Your task to perform on an android device: open app "Walmart Shopping & Grocery" (install if not already installed) Image 0: 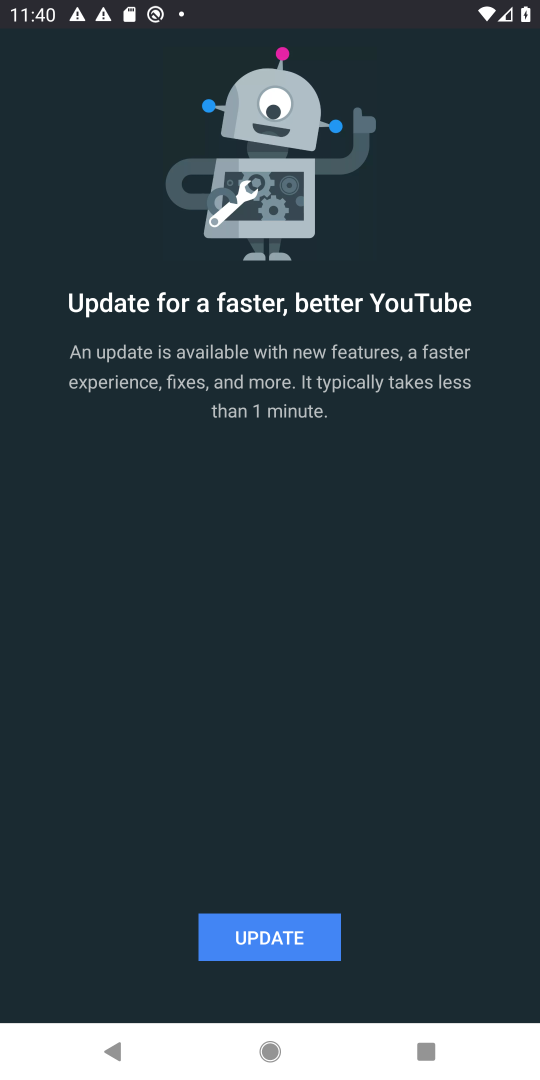
Step 0: press home button
Your task to perform on an android device: open app "Walmart Shopping & Grocery" (install if not already installed) Image 1: 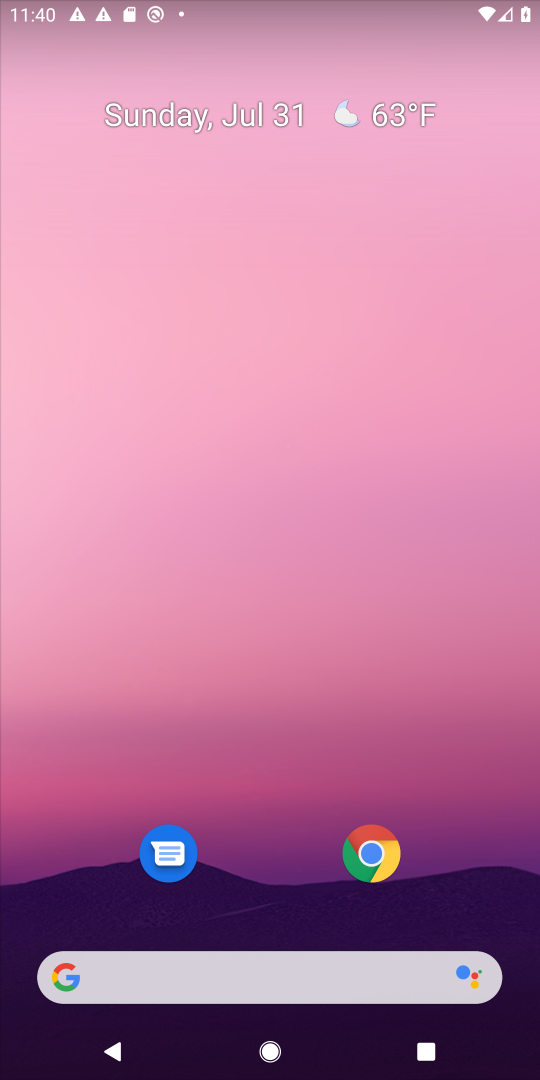
Step 1: drag from (323, 979) to (329, 16)
Your task to perform on an android device: open app "Walmart Shopping & Grocery" (install if not already installed) Image 2: 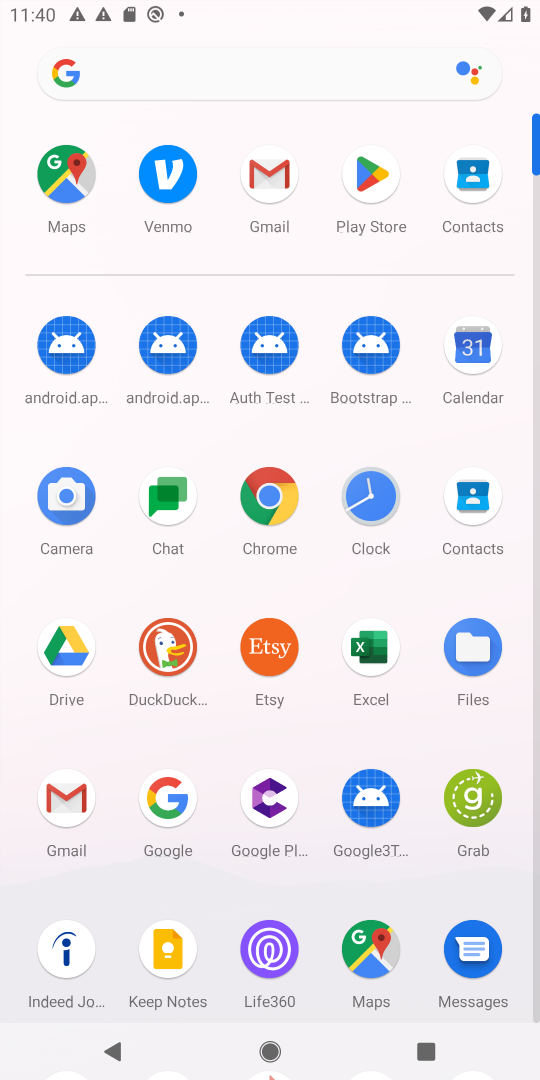
Step 2: click (374, 176)
Your task to perform on an android device: open app "Walmart Shopping & Grocery" (install if not already installed) Image 3: 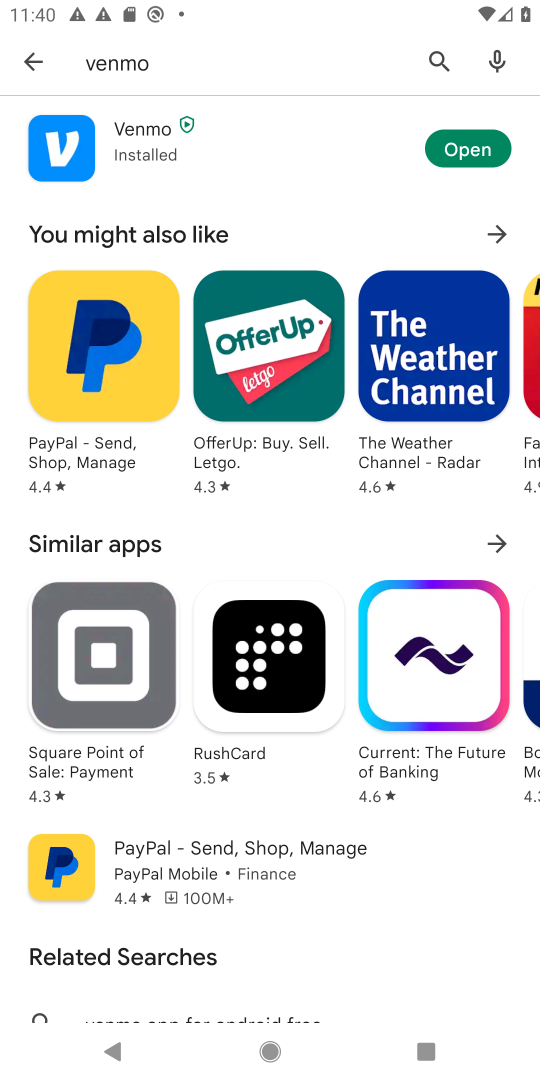
Step 3: click (438, 60)
Your task to perform on an android device: open app "Walmart Shopping & Grocery" (install if not already installed) Image 4: 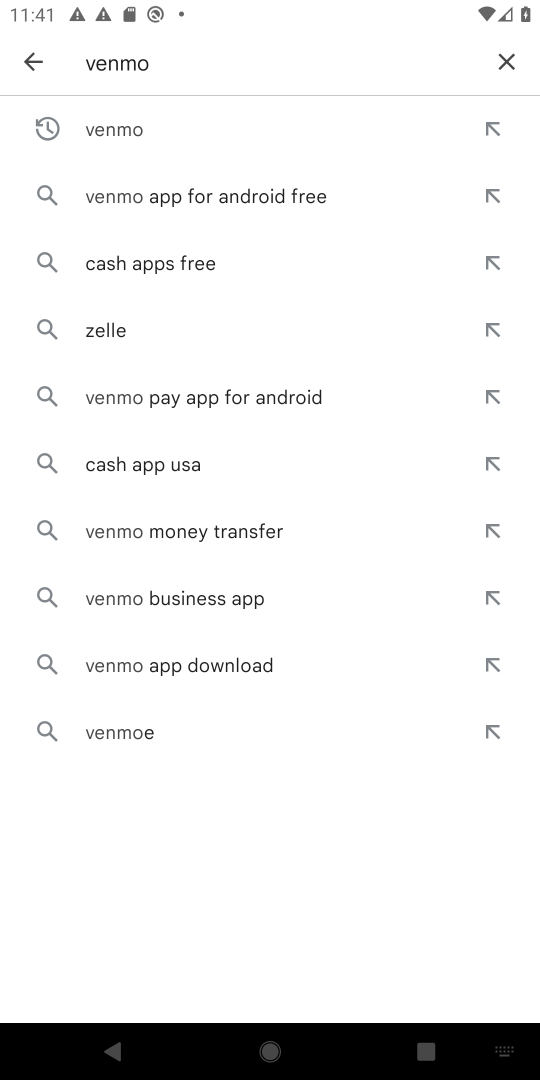
Step 4: click (506, 60)
Your task to perform on an android device: open app "Walmart Shopping & Grocery" (install if not already installed) Image 5: 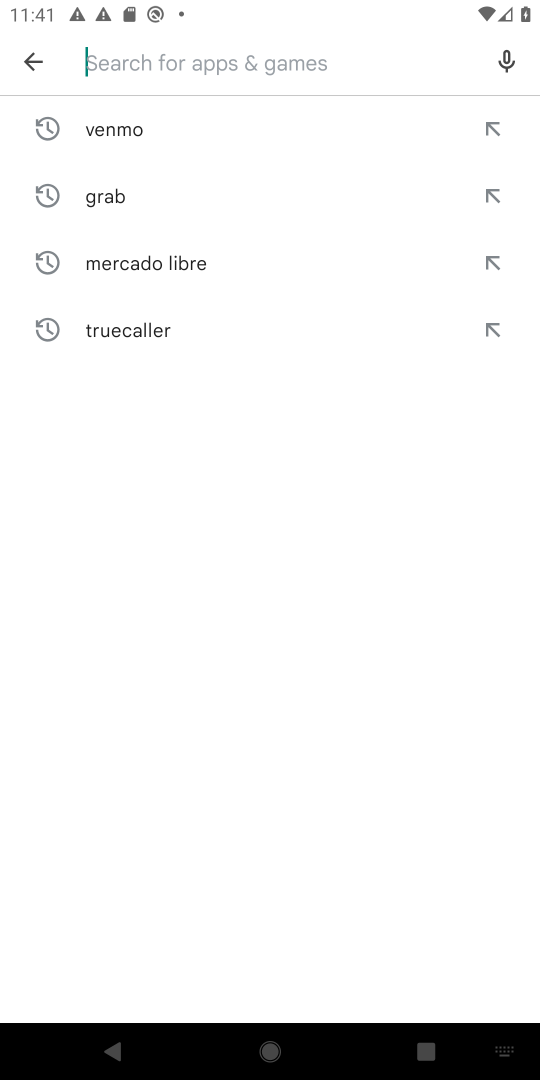
Step 5: type "Walmart Shopping & Grocery""
Your task to perform on an android device: open app "Walmart Shopping & Grocery" (install if not already installed) Image 6: 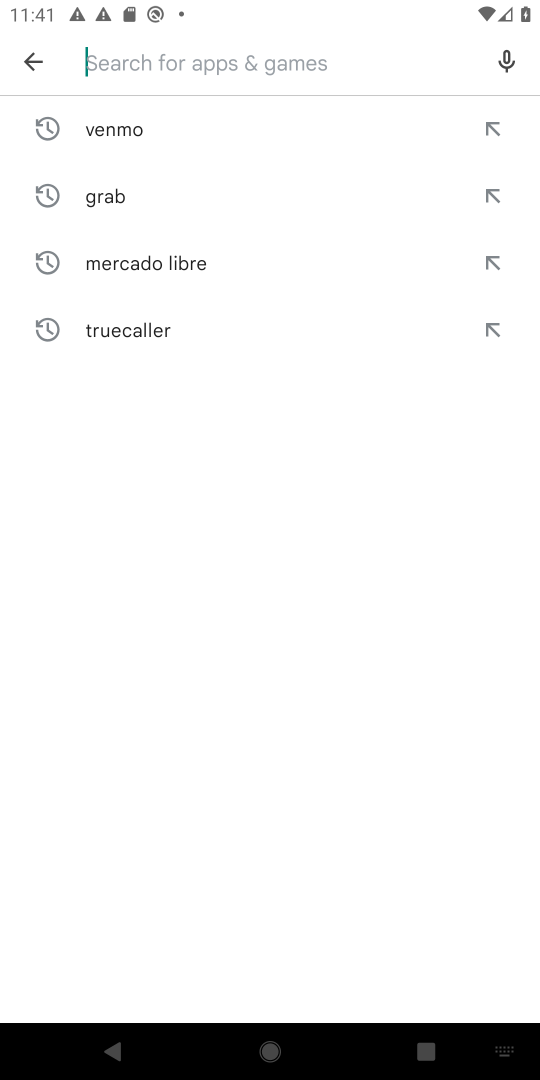
Step 6: type "Walmart Shopping & Grocery"
Your task to perform on an android device: open app "Walmart Shopping & Grocery" (install if not already installed) Image 7: 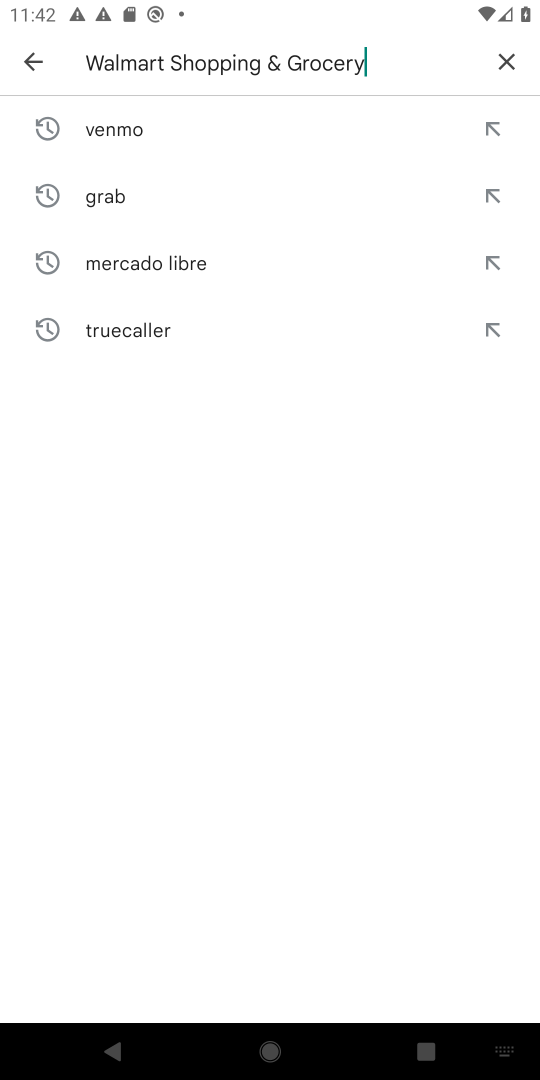
Step 7: type ""
Your task to perform on an android device: open app "Walmart Shopping & Grocery" (install if not already installed) Image 8: 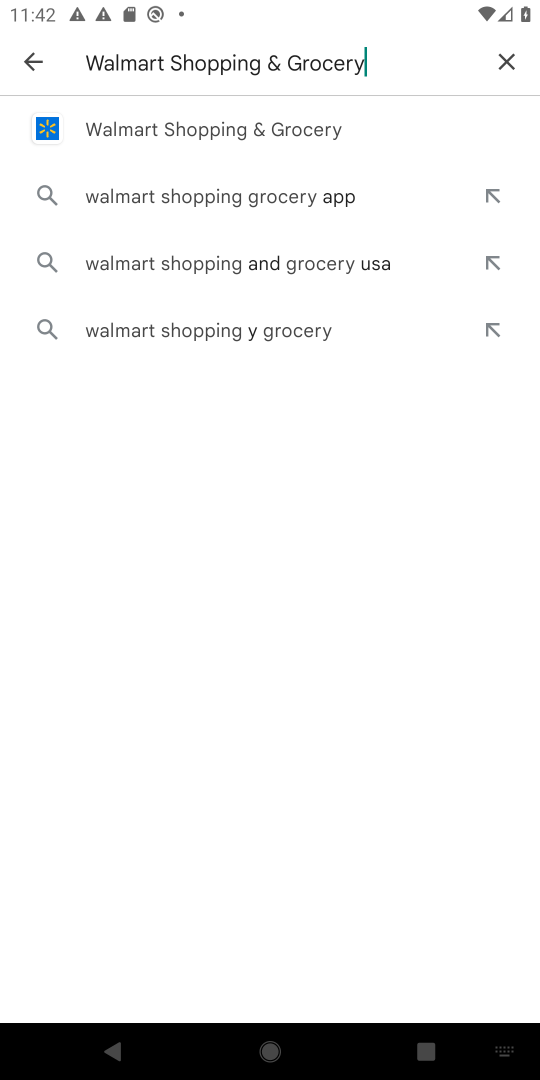
Step 8: click (117, 125)
Your task to perform on an android device: open app "Walmart Shopping & Grocery" (install if not already installed) Image 9: 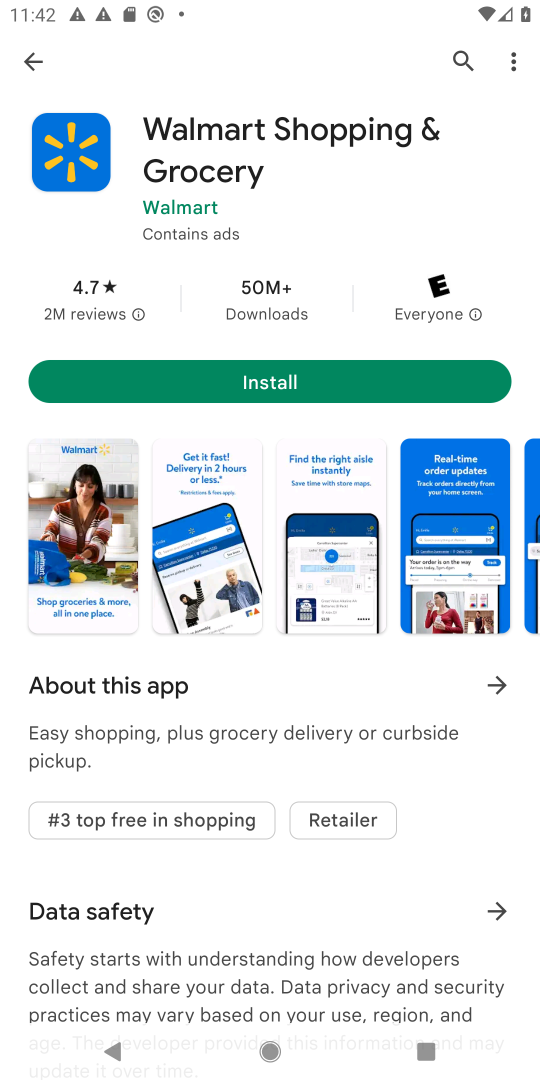
Step 9: click (280, 385)
Your task to perform on an android device: open app "Walmart Shopping & Grocery" (install if not already installed) Image 10: 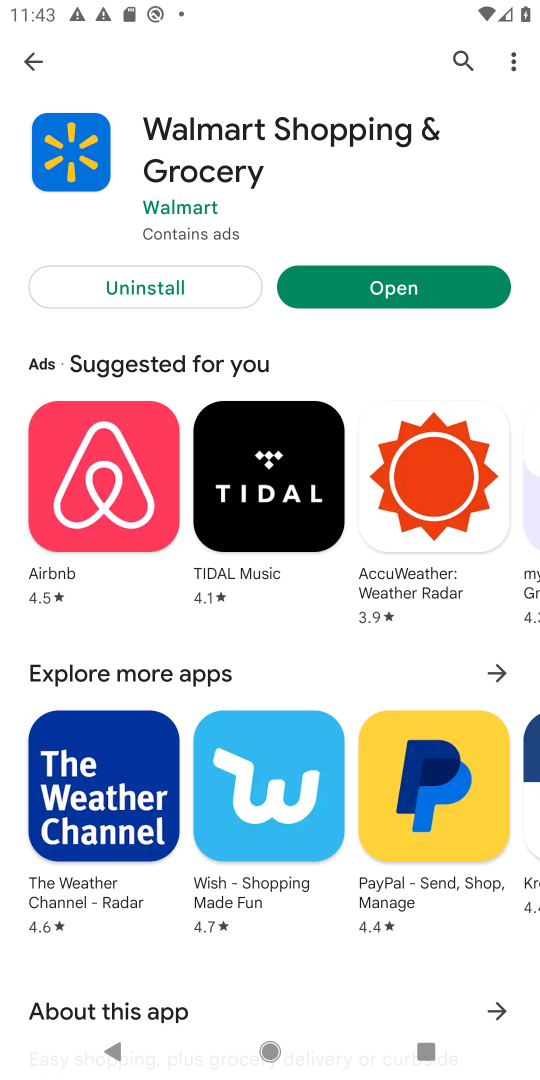
Step 10: task complete